Your task to perform on an android device: turn vacation reply on in the gmail app Image 0: 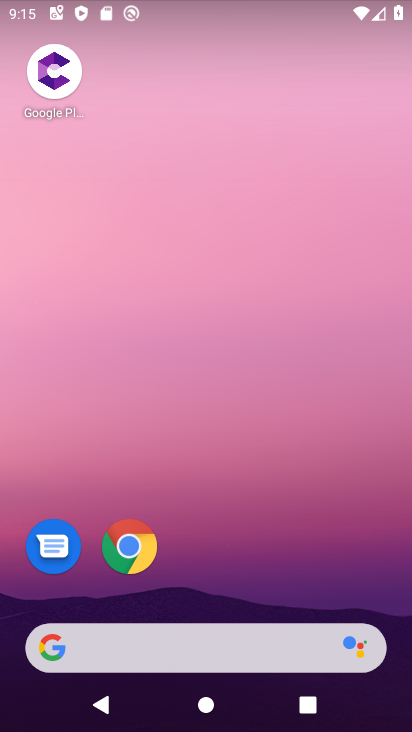
Step 0: drag from (305, 590) to (178, 46)
Your task to perform on an android device: turn vacation reply on in the gmail app Image 1: 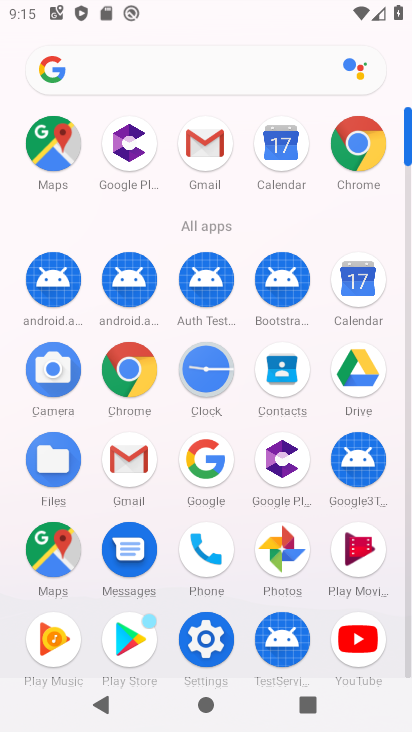
Step 1: click (207, 635)
Your task to perform on an android device: turn vacation reply on in the gmail app Image 2: 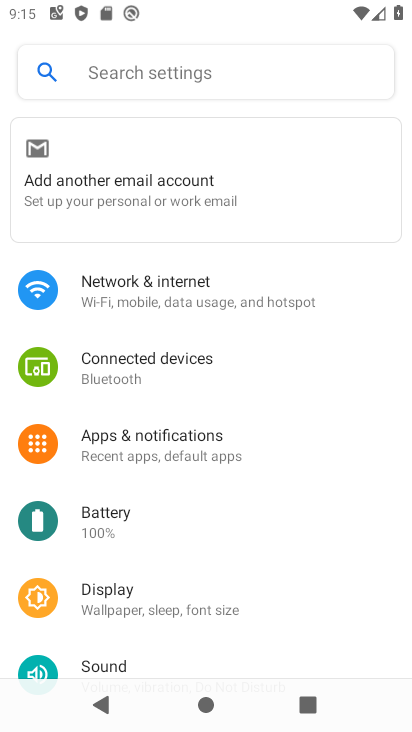
Step 2: press home button
Your task to perform on an android device: turn vacation reply on in the gmail app Image 3: 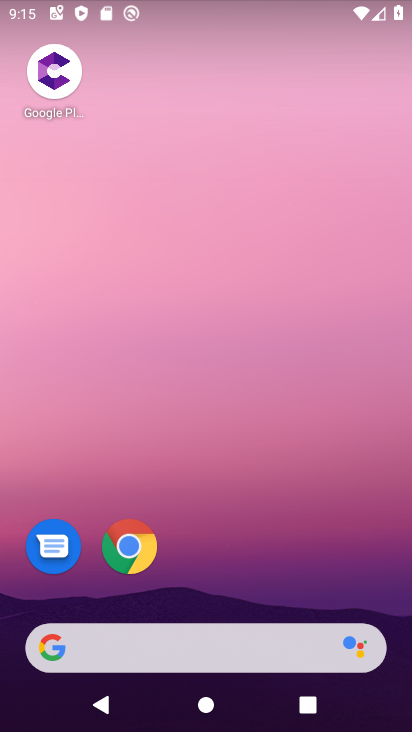
Step 3: drag from (166, 598) to (303, 11)
Your task to perform on an android device: turn vacation reply on in the gmail app Image 4: 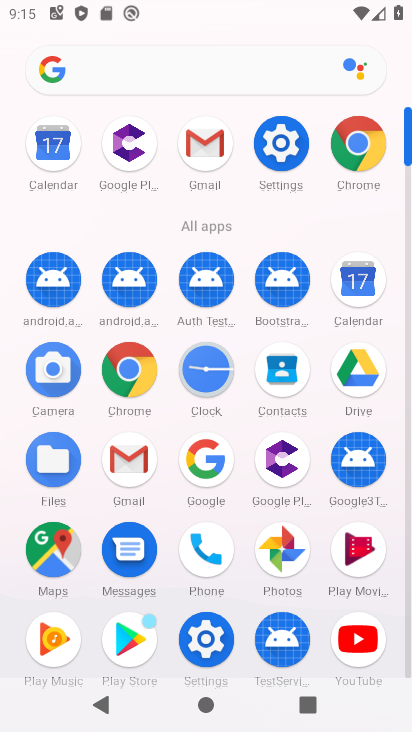
Step 4: click (201, 148)
Your task to perform on an android device: turn vacation reply on in the gmail app Image 5: 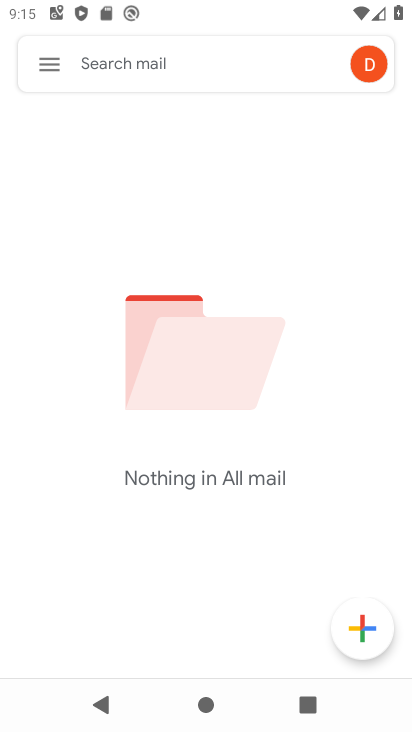
Step 5: click (45, 69)
Your task to perform on an android device: turn vacation reply on in the gmail app Image 6: 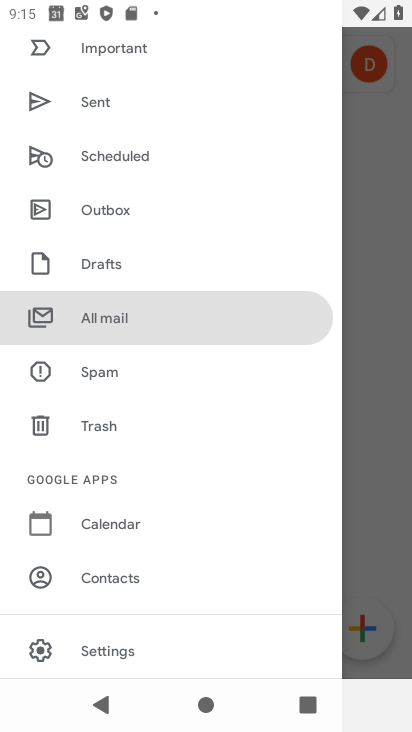
Step 6: click (173, 651)
Your task to perform on an android device: turn vacation reply on in the gmail app Image 7: 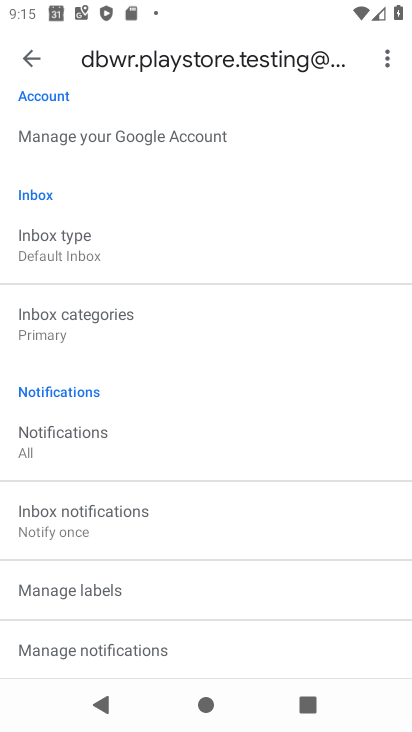
Step 7: drag from (155, 609) to (157, 398)
Your task to perform on an android device: turn vacation reply on in the gmail app Image 8: 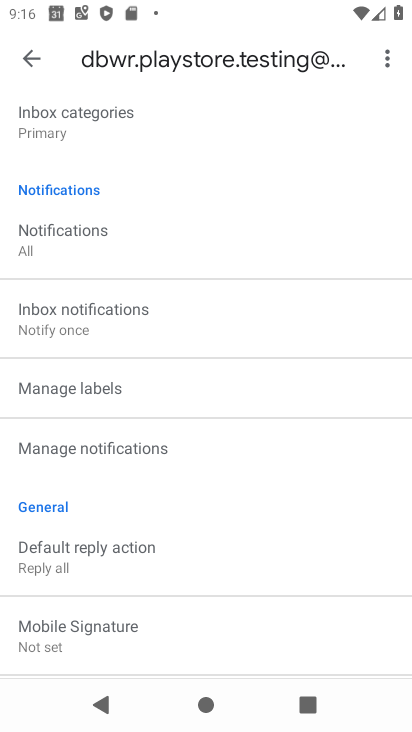
Step 8: drag from (116, 638) to (137, 463)
Your task to perform on an android device: turn vacation reply on in the gmail app Image 9: 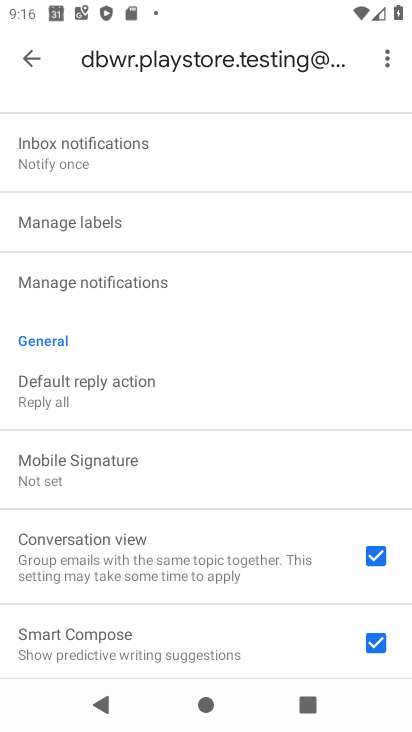
Step 9: drag from (133, 614) to (164, 354)
Your task to perform on an android device: turn vacation reply on in the gmail app Image 10: 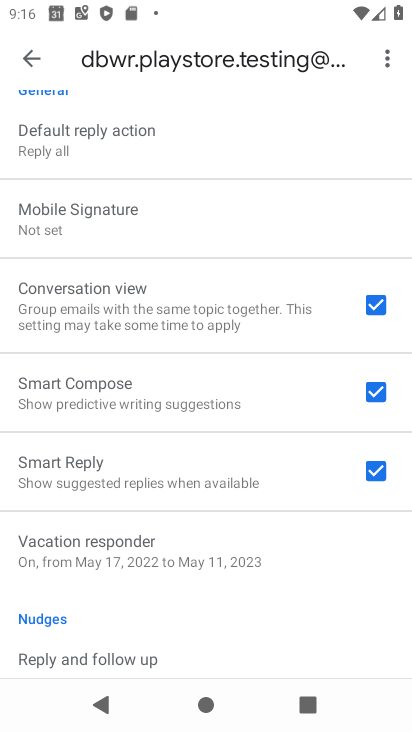
Step 10: click (173, 558)
Your task to perform on an android device: turn vacation reply on in the gmail app Image 11: 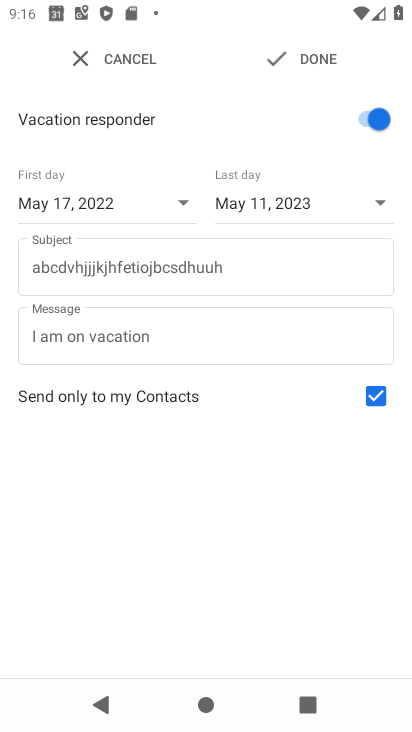
Step 11: click (301, 51)
Your task to perform on an android device: turn vacation reply on in the gmail app Image 12: 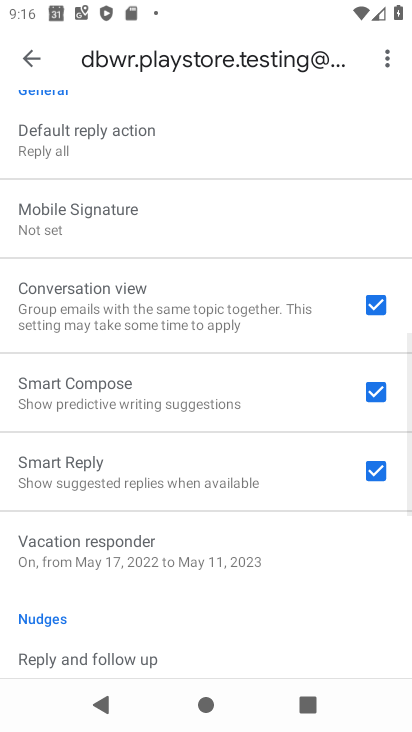
Step 12: task complete